Your task to perform on an android device: turn on airplane mode Image 0: 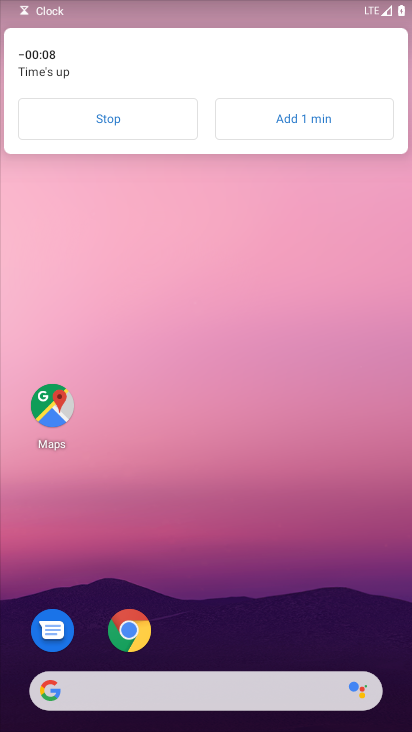
Step 0: click (86, 107)
Your task to perform on an android device: turn on airplane mode Image 1: 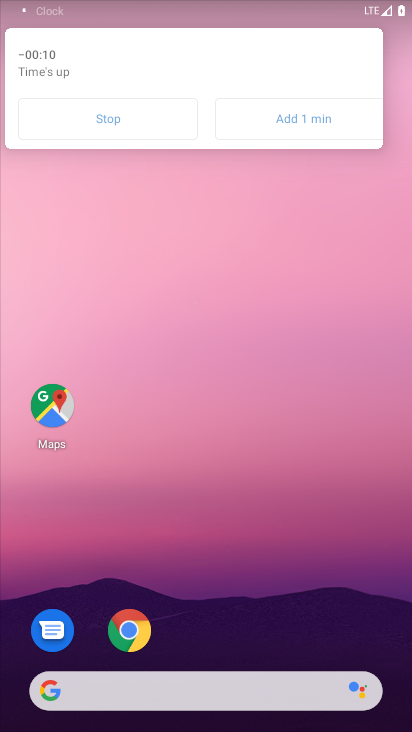
Step 1: drag from (247, 605) to (259, 181)
Your task to perform on an android device: turn on airplane mode Image 2: 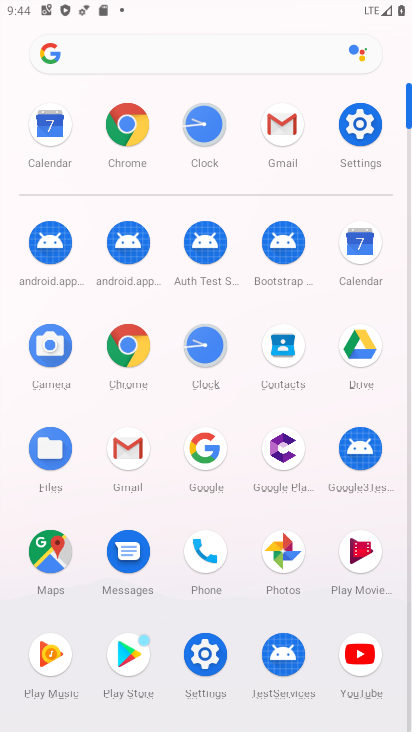
Step 2: click (379, 121)
Your task to perform on an android device: turn on airplane mode Image 3: 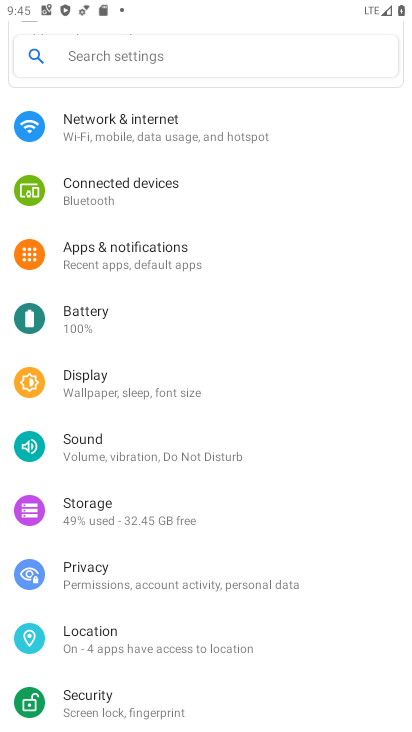
Step 3: click (158, 144)
Your task to perform on an android device: turn on airplane mode Image 4: 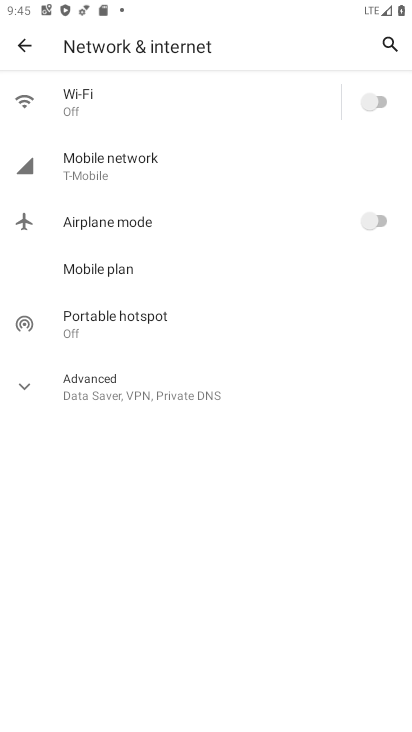
Step 4: click (385, 215)
Your task to perform on an android device: turn on airplane mode Image 5: 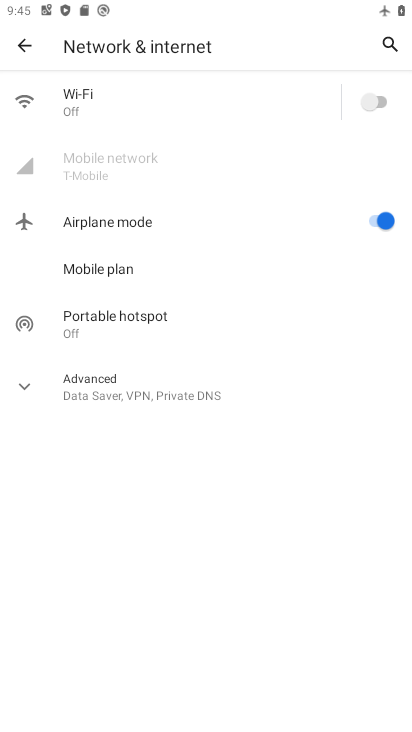
Step 5: task complete